Your task to perform on an android device: Go to battery settings Image 0: 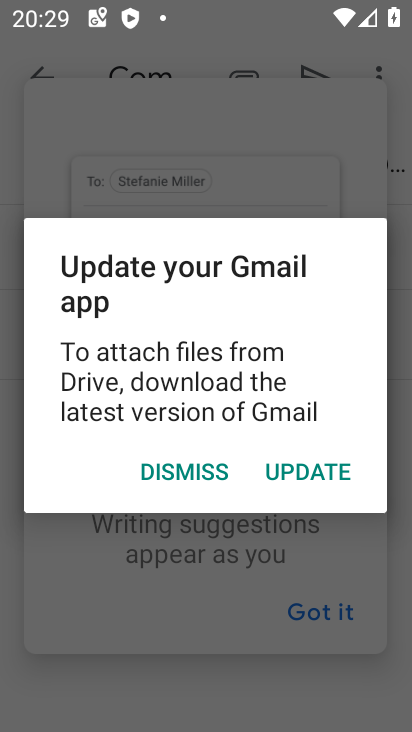
Step 0: press home button
Your task to perform on an android device: Go to battery settings Image 1: 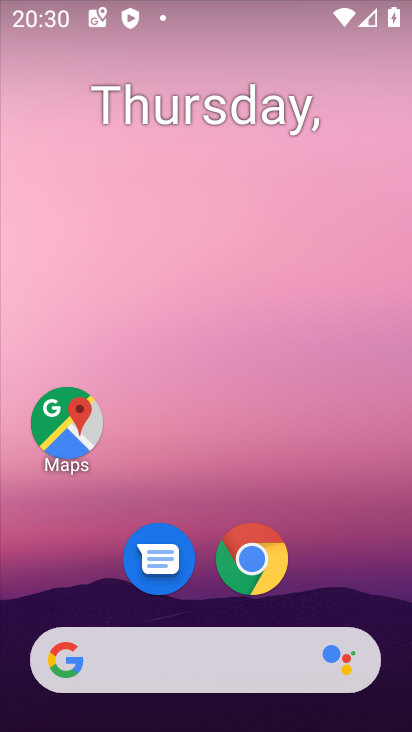
Step 1: drag from (187, 660) to (277, 72)
Your task to perform on an android device: Go to battery settings Image 2: 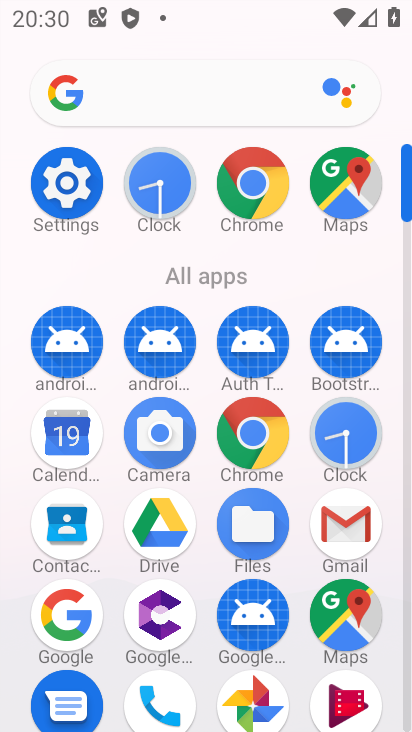
Step 2: click (40, 214)
Your task to perform on an android device: Go to battery settings Image 3: 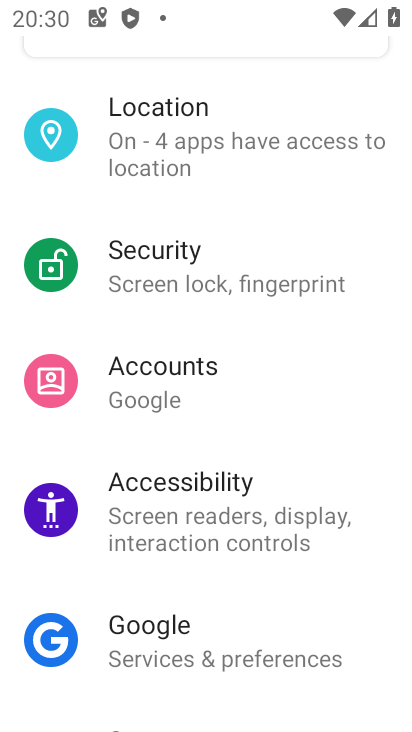
Step 3: drag from (180, 100) to (169, 503)
Your task to perform on an android device: Go to battery settings Image 4: 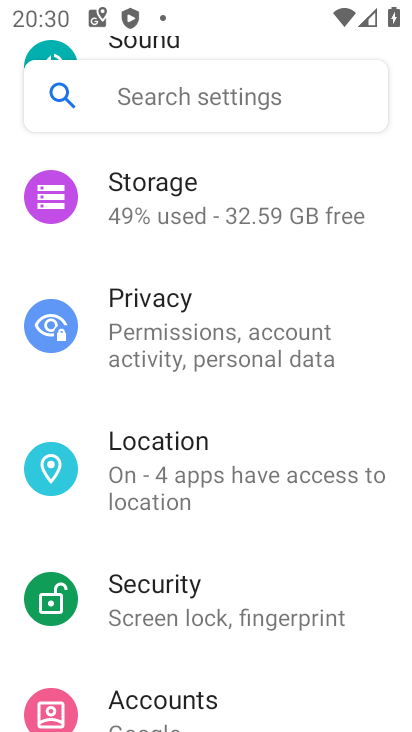
Step 4: drag from (163, 301) to (144, 715)
Your task to perform on an android device: Go to battery settings Image 5: 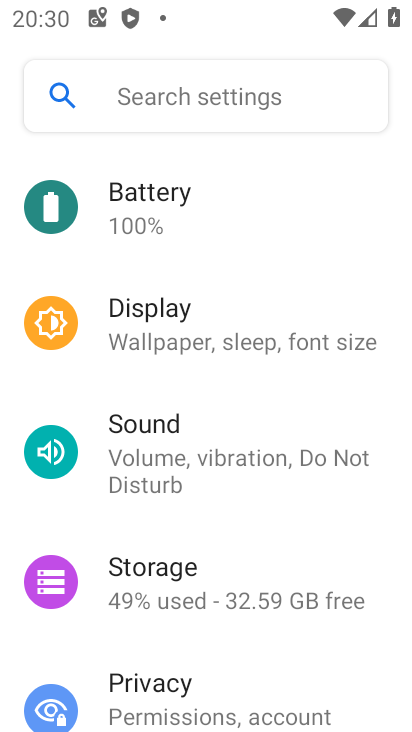
Step 5: click (156, 230)
Your task to perform on an android device: Go to battery settings Image 6: 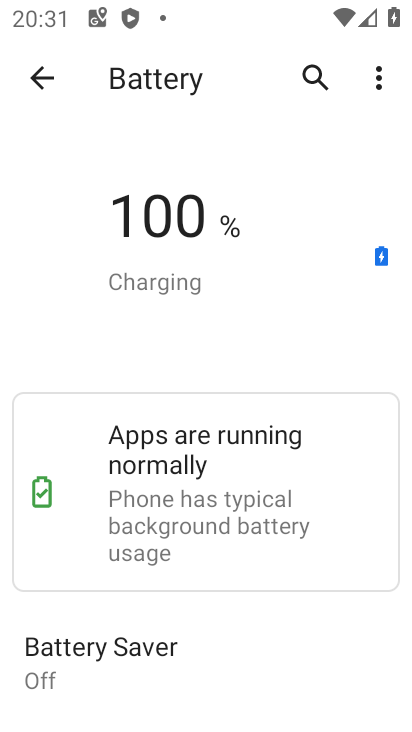
Step 6: task complete